Your task to perform on an android device: Search for Italian restaurants on Maps Image 0: 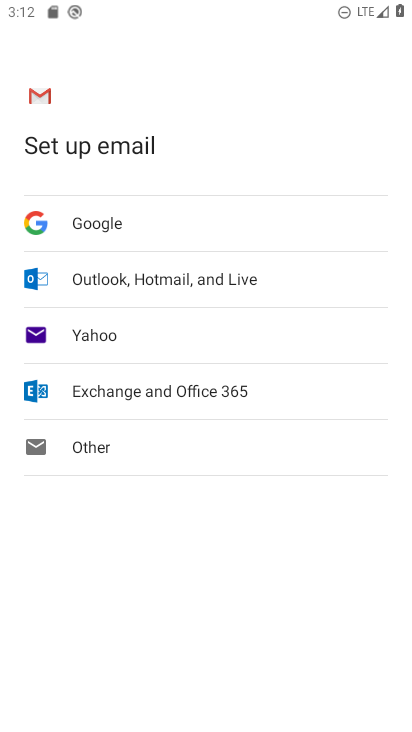
Step 0: press home button
Your task to perform on an android device: Search for Italian restaurants on Maps Image 1: 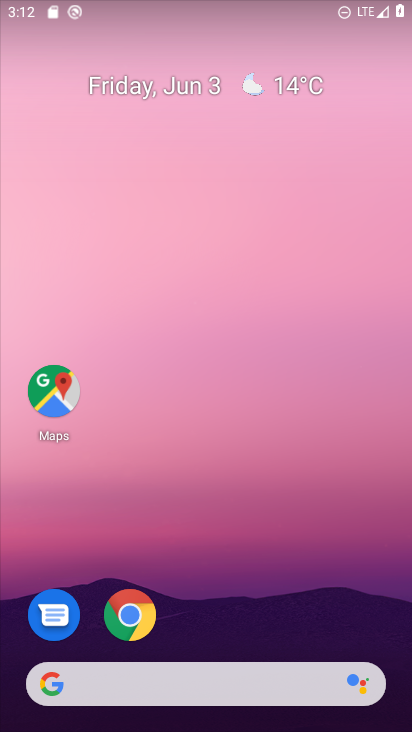
Step 1: drag from (188, 635) to (287, 105)
Your task to perform on an android device: Search for Italian restaurants on Maps Image 2: 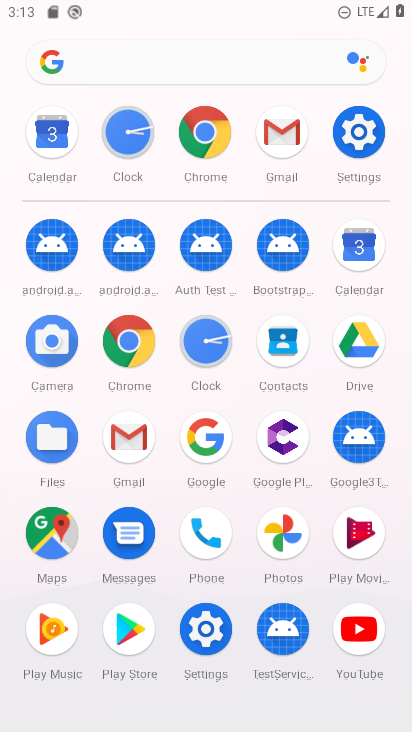
Step 2: click (51, 526)
Your task to perform on an android device: Search for Italian restaurants on Maps Image 3: 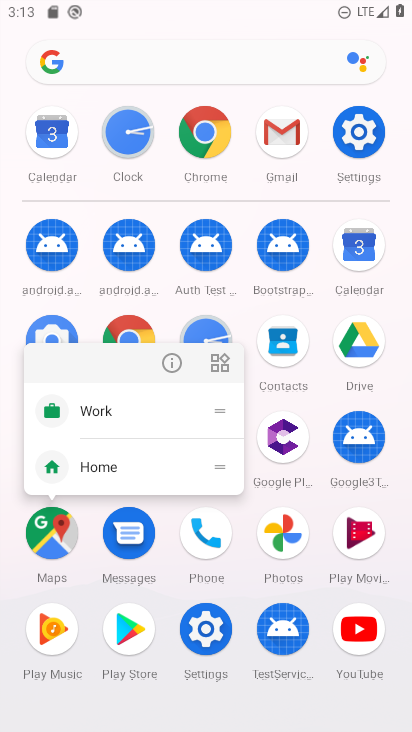
Step 3: click (164, 362)
Your task to perform on an android device: Search for Italian restaurants on Maps Image 4: 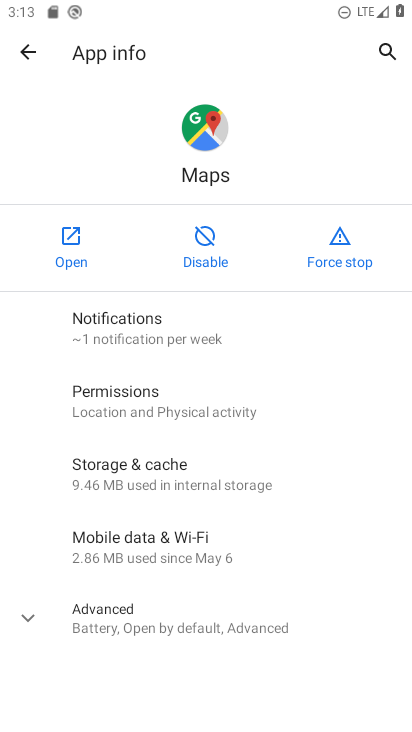
Step 4: click (49, 231)
Your task to perform on an android device: Search for Italian restaurants on Maps Image 5: 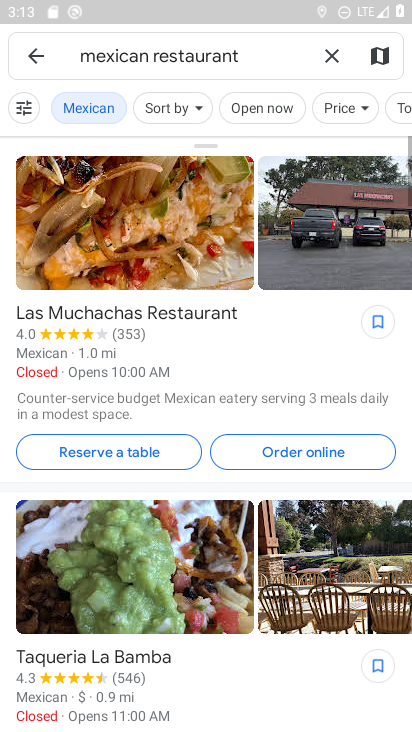
Step 5: click (329, 51)
Your task to perform on an android device: Search for Italian restaurants on Maps Image 6: 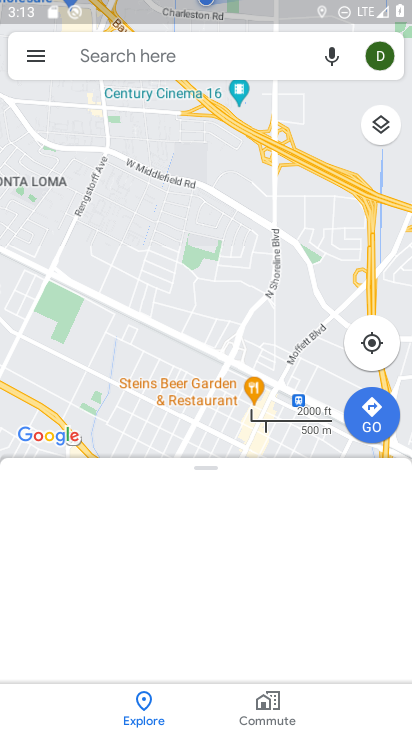
Step 6: click (129, 64)
Your task to perform on an android device: Search for Italian restaurants on Maps Image 7: 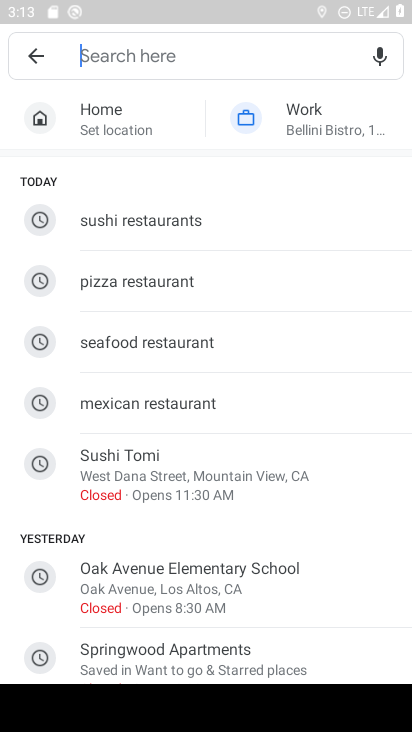
Step 7: click (159, 49)
Your task to perform on an android device: Search for Italian restaurants on Maps Image 8: 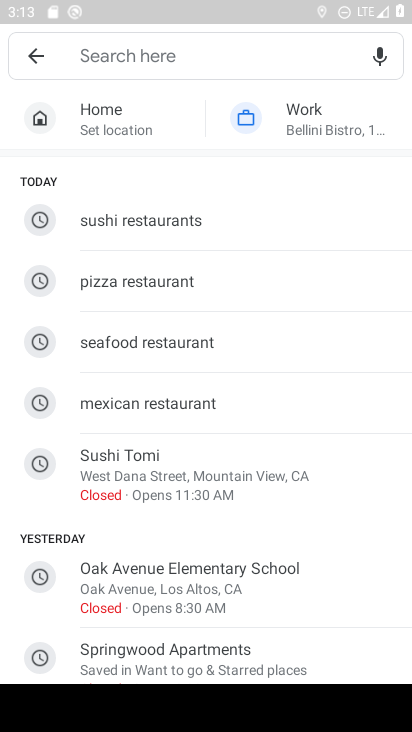
Step 8: type "Italian restaurants"
Your task to perform on an android device: Search for Italian restaurants on Maps Image 9: 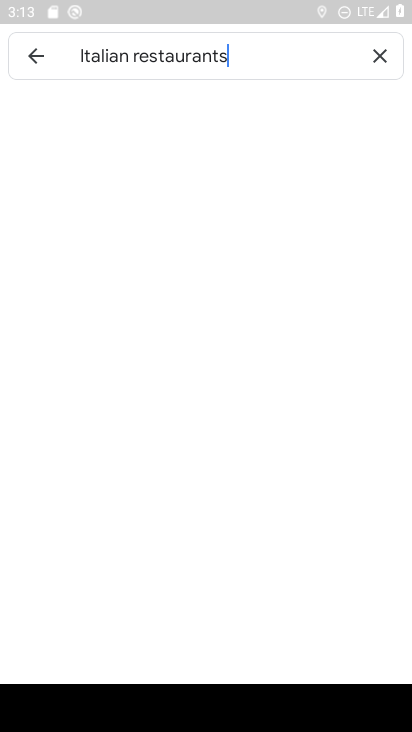
Step 9: type ""
Your task to perform on an android device: Search for Italian restaurants on Maps Image 10: 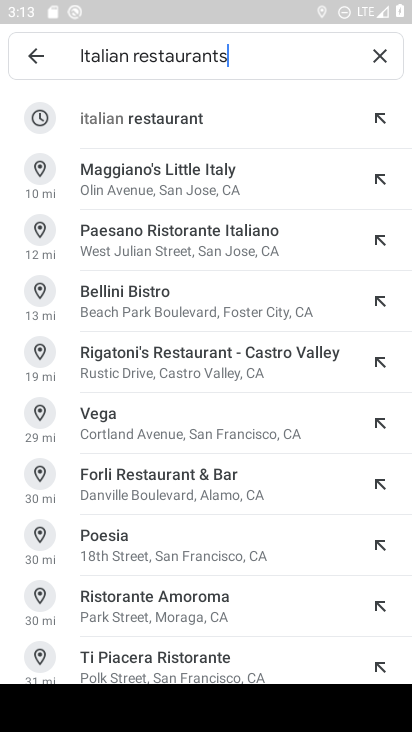
Step 10: click (171, 119)
Your task to perform on an android device: Search for Italian restaurants on Maps Image 11: 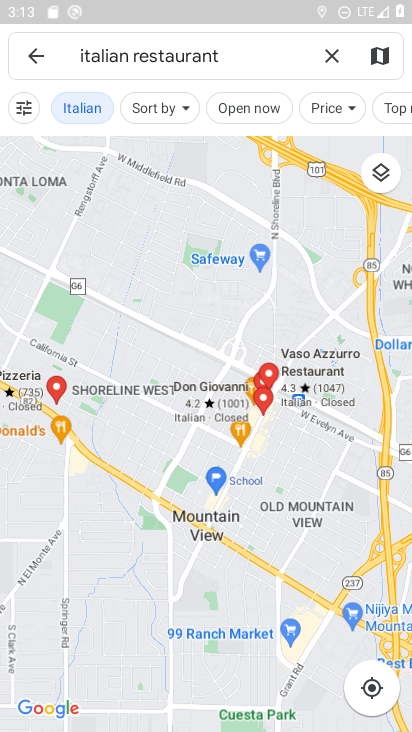
Step 11: task complete